Your task to perform on an android device: uninstall "Indeed Job Search" Image 0: 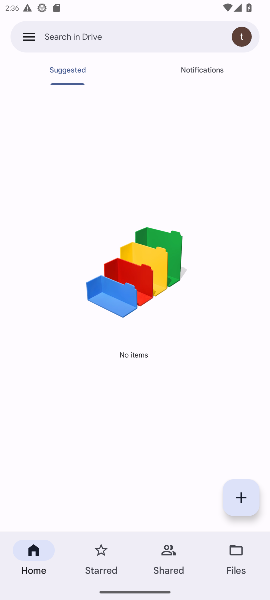
Step 0: press home button
Your task to perform on an android device: uninstall "Indeed Job Search" Image 1: 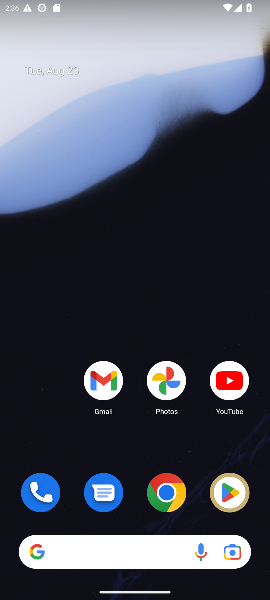
Step 1: click (227, 503)
Your task to perform on an android device: uninstall "Indeed Job Search" Image 2: 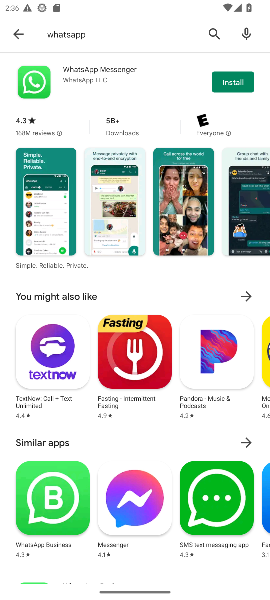
Step 2: click (210, 38)
Your task to perform on an android device: uninstall "Indeed Job Search" Image 3: 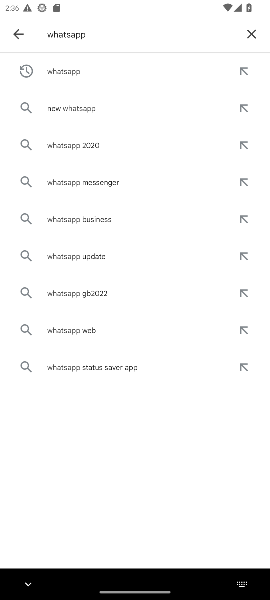
Step 3: click (250, 37)
Your task to perform on an android device: uninstall "Indeed Job Search" Image 4: 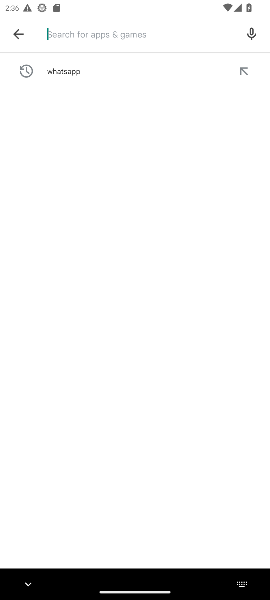
Step 4: type "indeed"
Your task to perform on an android device: uninstall "Indeed Job Search" Image 5: 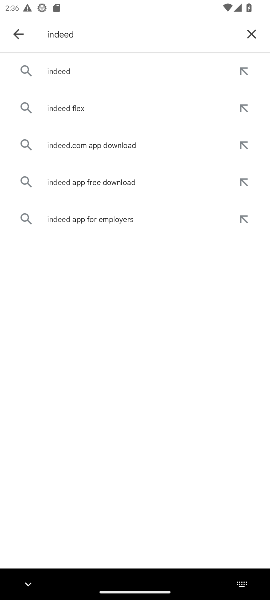
Step 5: click (59, 66)
Your task to perform on an android device: uninstall "Indeed Job Search" Image 6: 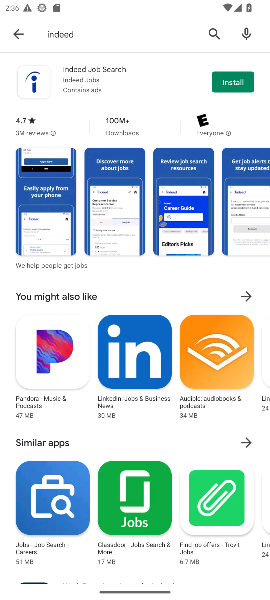
Step 6: click (223, 83)
Your task to perform on an android device: uninstall "Indeed Job Search" Image 7: 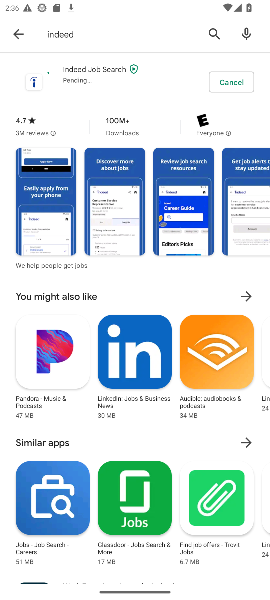
Step 7: task complete